Your task to perform on an android device: turn on showing notifications on the lock screen Image 0: 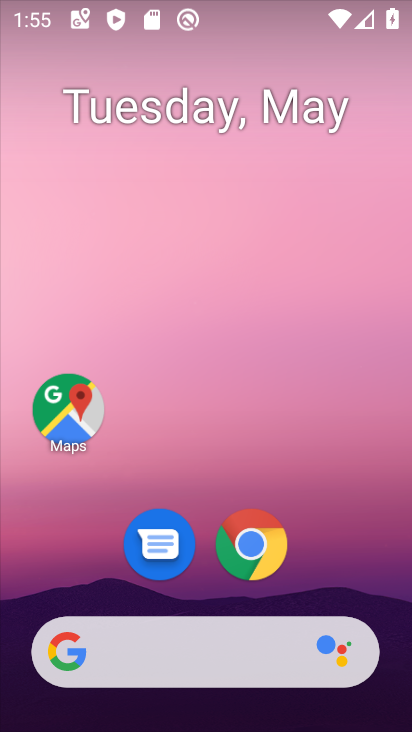
Step 0: drag from (321, 512) to (259, 50)
Your task to perform on an android device: turn on showing notifications on the lock screen Image 1: 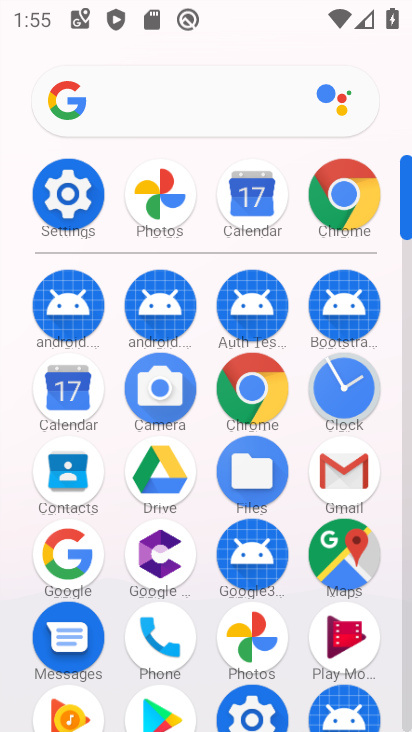
Step 1: click (64, 197)
Your task to perform on an android device: turn on showing notifications on the lock screen Image 2: 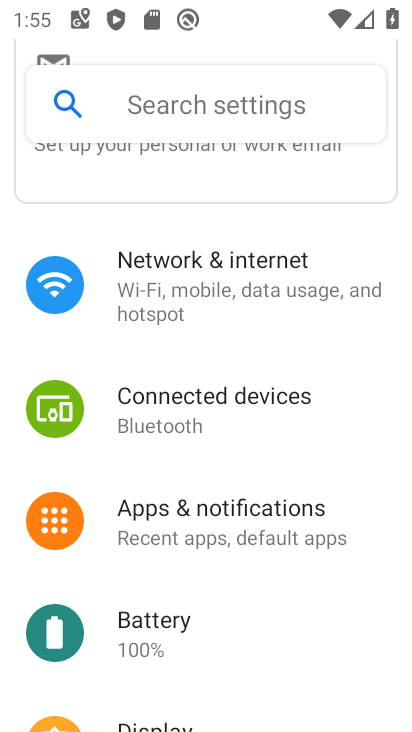
Step 2: click (206, 516)
Your task to perform on an android device: turn on showing notifications on the lock screen Image 3: 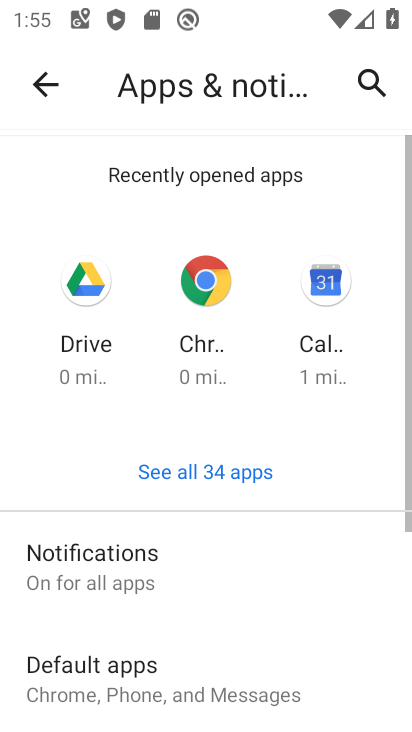
Step 3: drag from (223, 537) to (226, 288)
Your task to perform on an android device: turn on showing notifications on the lock screen Image 4: 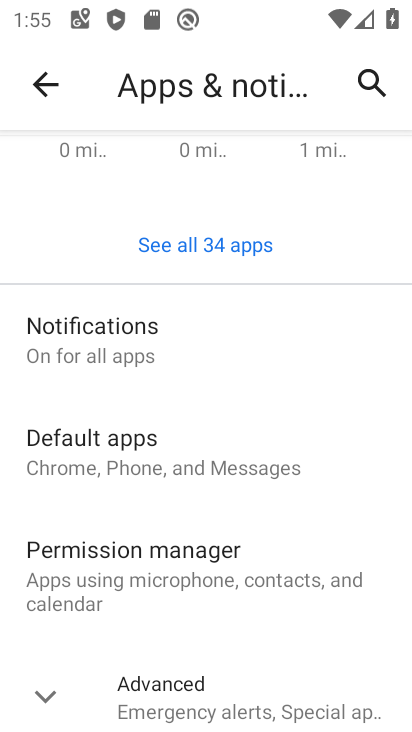
Step 4: click (125, 357)
Your task to perform on an android device: turn on showing notifications on the lock screen Image 5: 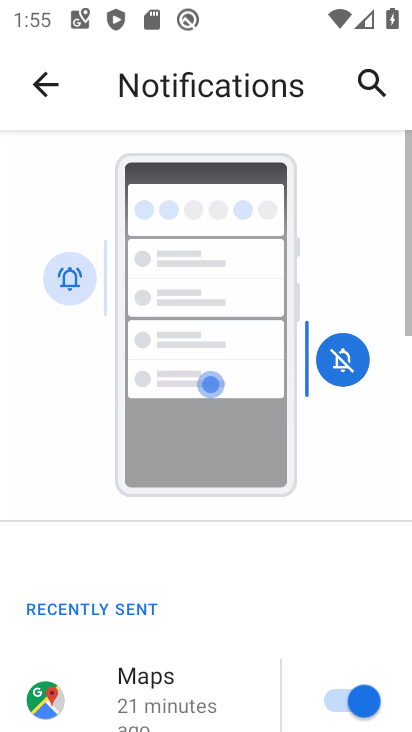
Step 5: drag from (245, 579) to (238, 83)
Your task to perform on an android device: turn on showing notifications on the lock screen Image 6: 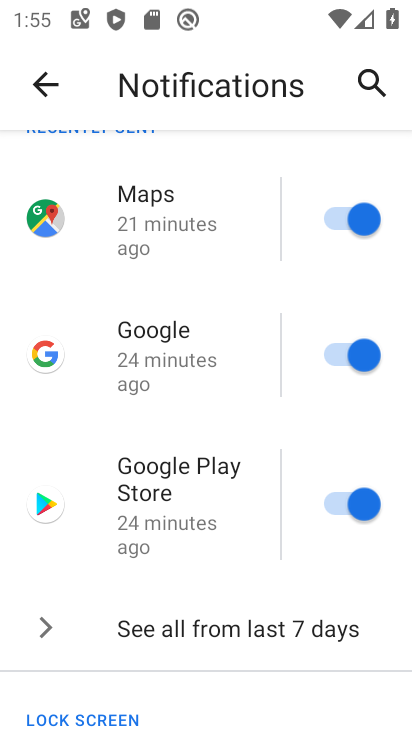
Step 6: drag from (178, 633) to (236, 131)
Your task to perform on an android device: turn on showing notifications on the lock screen Image 7: 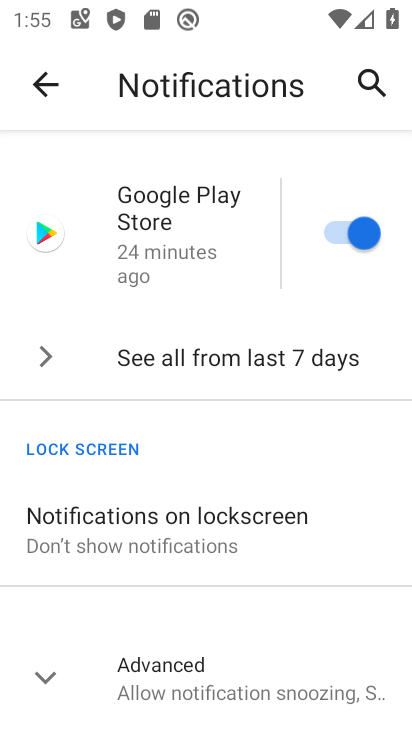
Step 7: click (199, 540)
Your task to perform on an android device: turn on showing notifications on the lock screen Image 8: 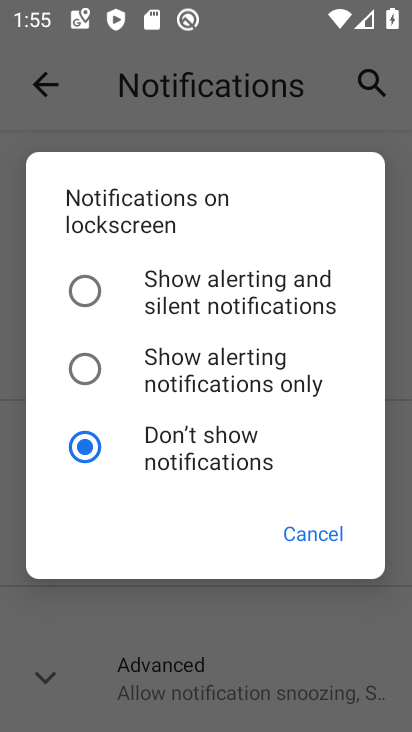
Step 8: click (253, 369)
Your task to perform on an android device: turn on showing notifications on the lock screen Image 9: 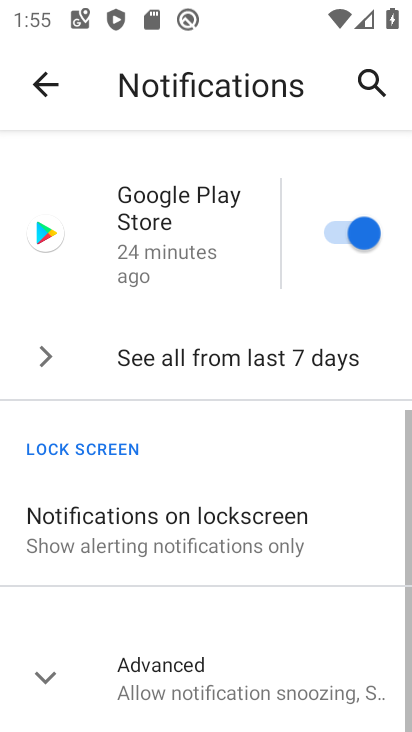
Step 9: task complete